Your task to perform on an android device: Show me productivity apps on the Play Store Image 0: 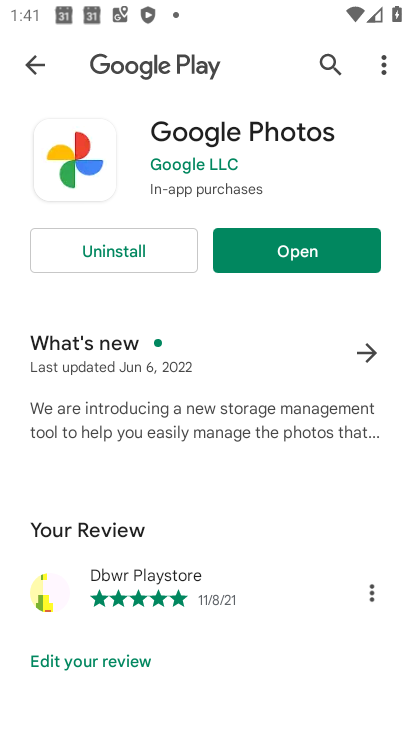
Step 0: press home button
Your task to perform on an android device: Show me productivity apps on the Play Store Image 1: 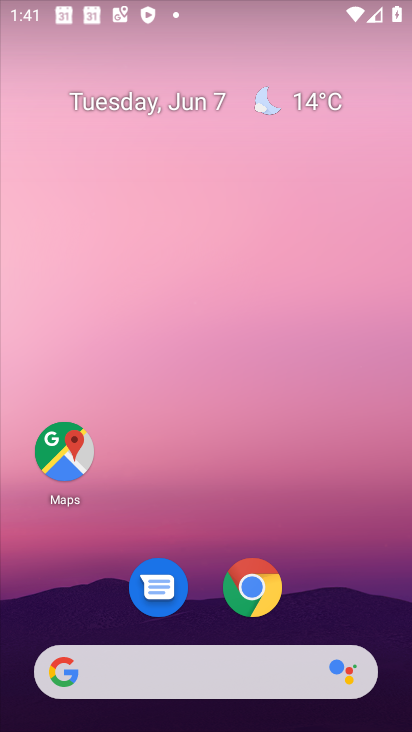
Step 1: drag from (216, 694) to (279, 157)
Your task to perform on an android device: Show me productivity apps on the Play Store Image 2: 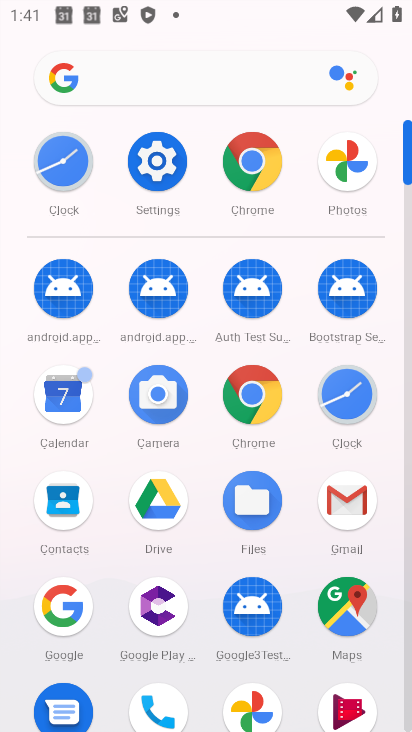
Step 2: drag from (220, 565) to (304, 158)
Your task to perform on an android device: Show me productivity apps on the Play Store Image 3: 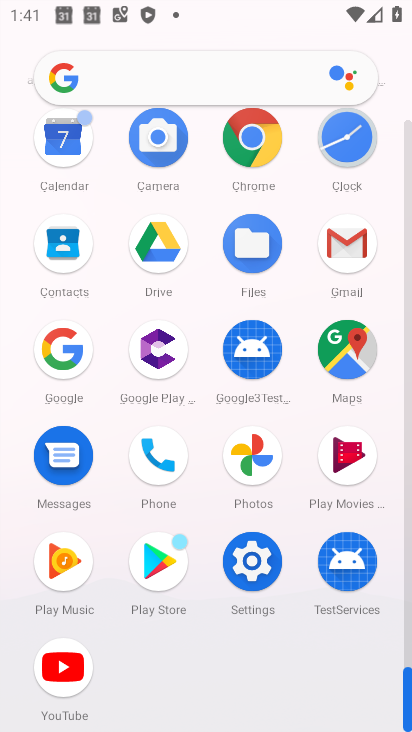
Step 3: click (167, 558)
Your task to perform on an android device: Show me productivity apps on the Play Store Image 4: 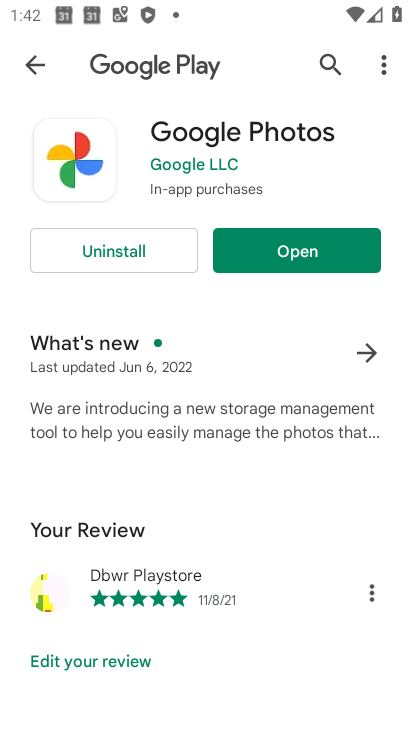
Step 4: click (39, 73)
Your task to perform on an android device: Show me productivity apps on the Play Store Image 5: 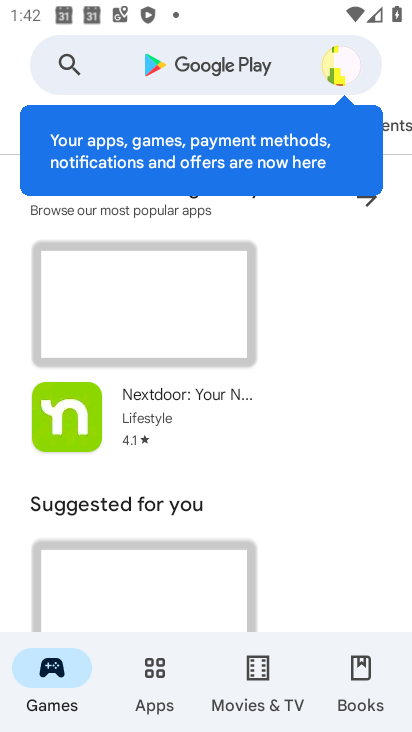
Step 5: click (167, 56)
Your task to perform on an android device: Show me productivity apps on the Play Store Image 6: 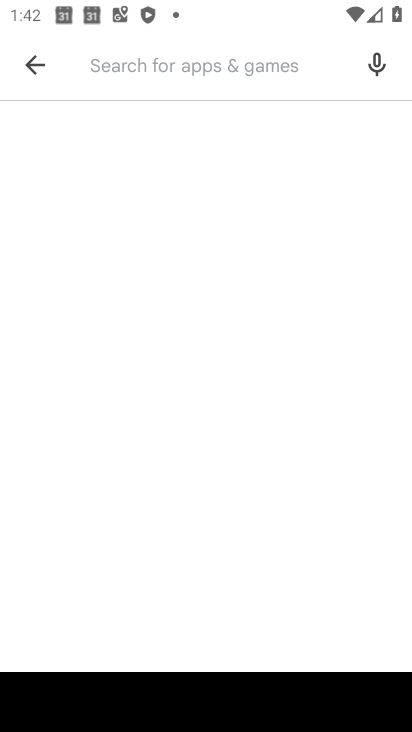
Step 6: type "productivity aaps"
Your task to perform on an android device: Show me productivity apps on the Play Store Image 7: 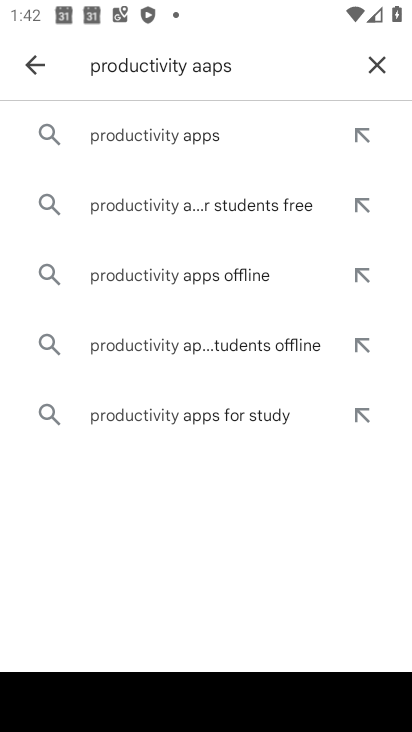
Step 7: click (225, 145)
Your task to perform on an android device: Show me productivity apps on the Play Store Image 8: 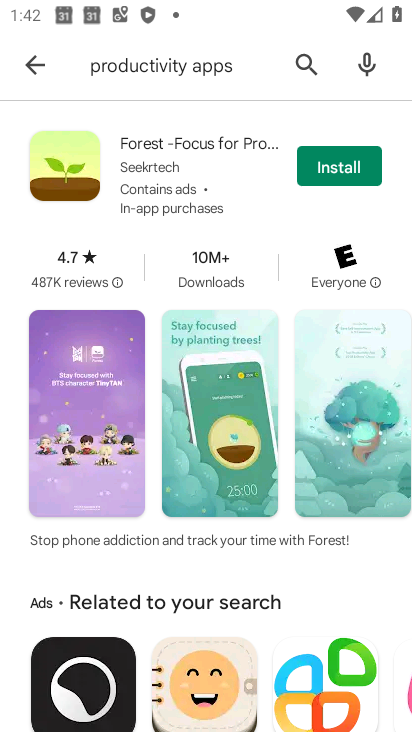
Step 8: task complete